Your task to perform on an android device: open app "DuckDuckGo Privacy Browser" (install if not already installed) Image 0: 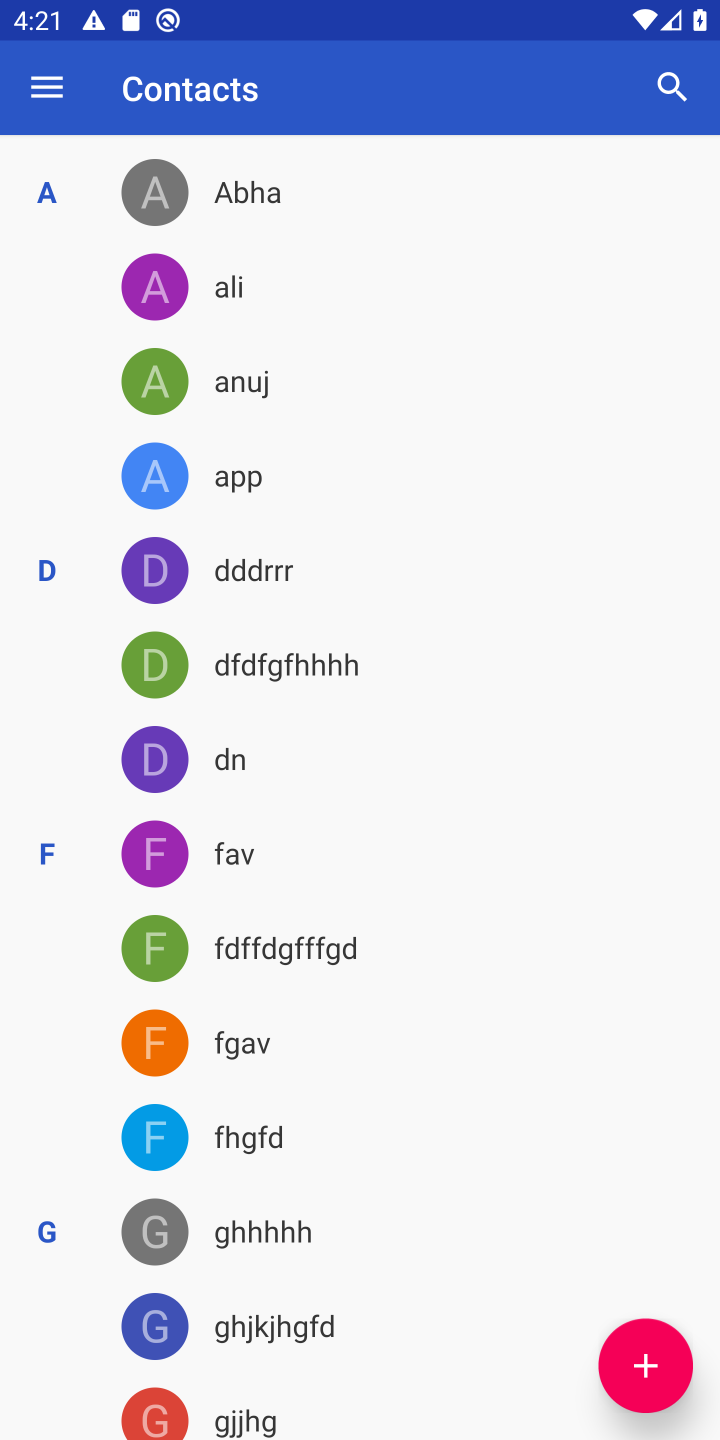
Step 0: press home button
Your task to perform on an android device: open app "DuckDuckGo Privacy Browser" (install if not already installed) Image 1: 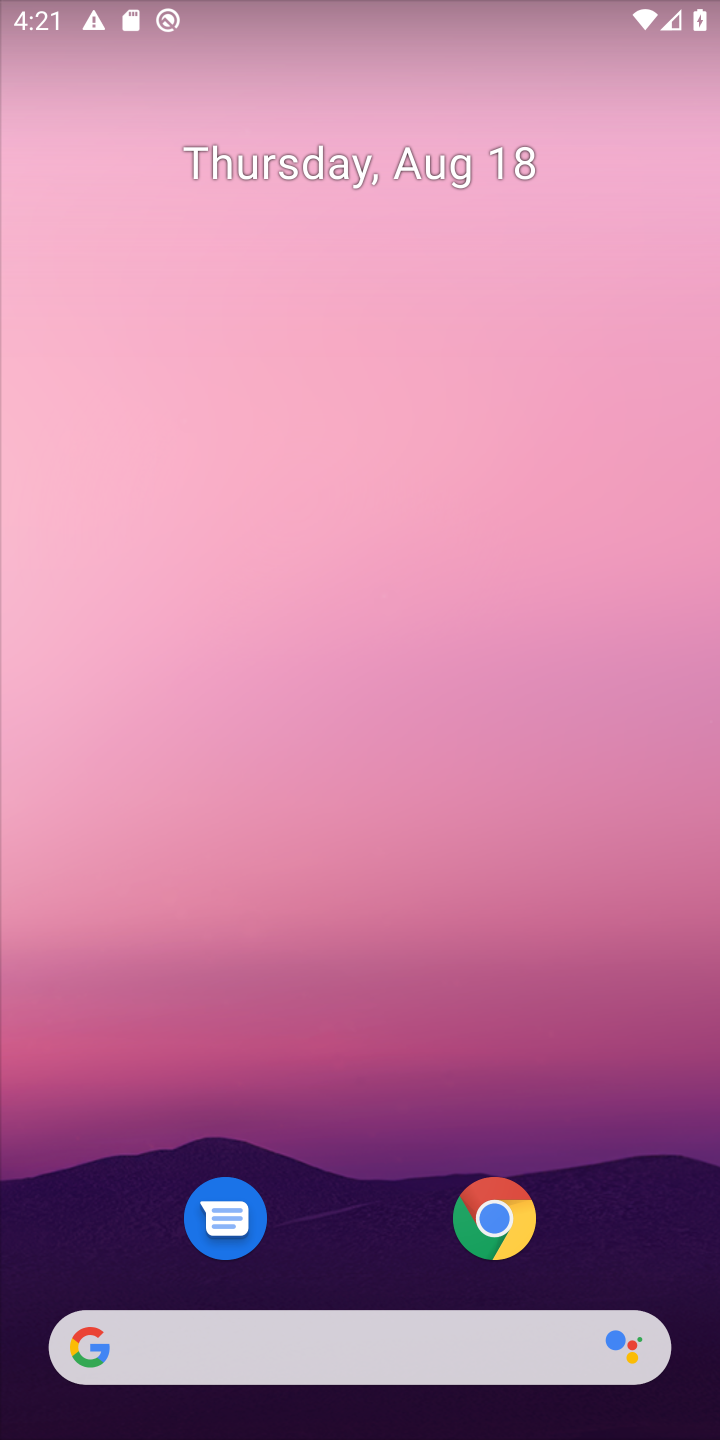
Step 1: drag from (337, 965) to (340, 381)
Your task to perform on an android device: open app "DuckDuckGo Privacy Browser" (install if not already installed) Image 2: 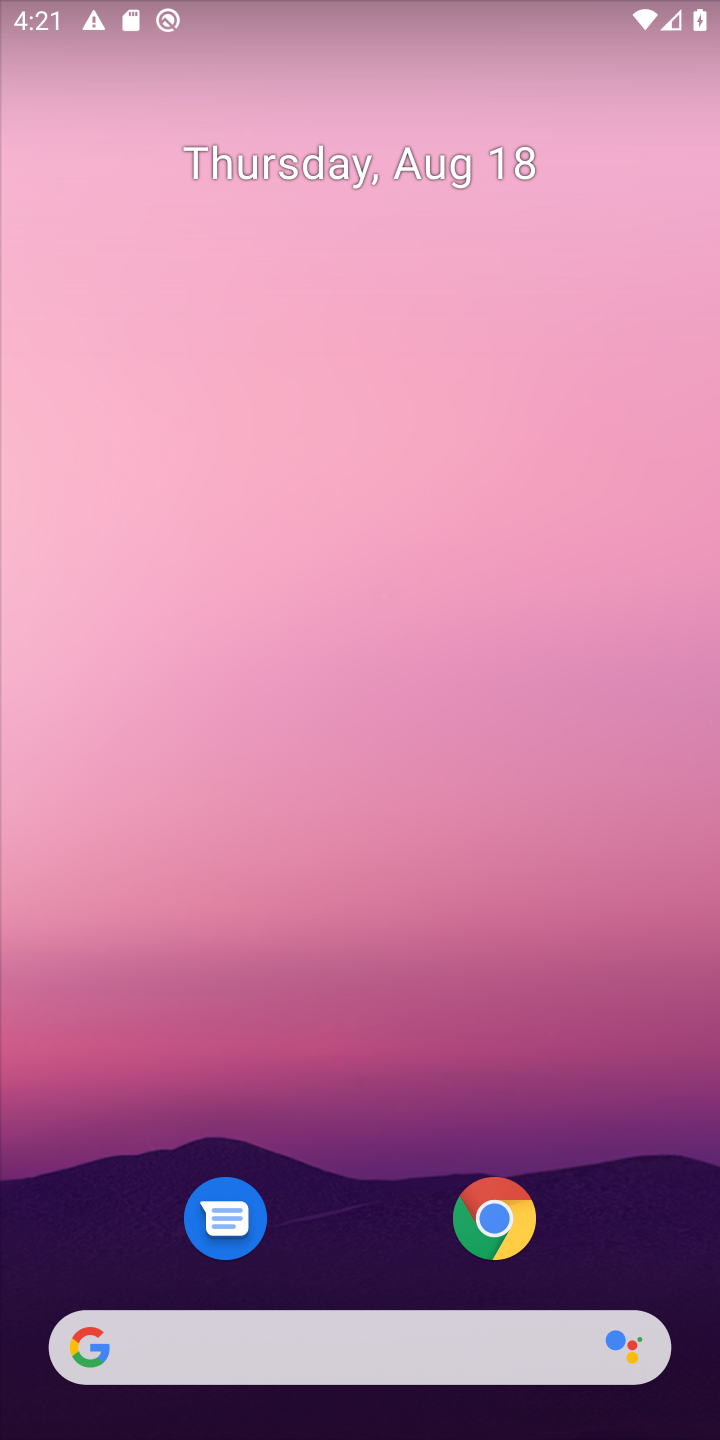
Step 2: drag from (333, 1150) to (372, 316)
Your task to perform on an android device: open app "DuckDuckGo Privacy Browser" (install if not already installed) Image 3: 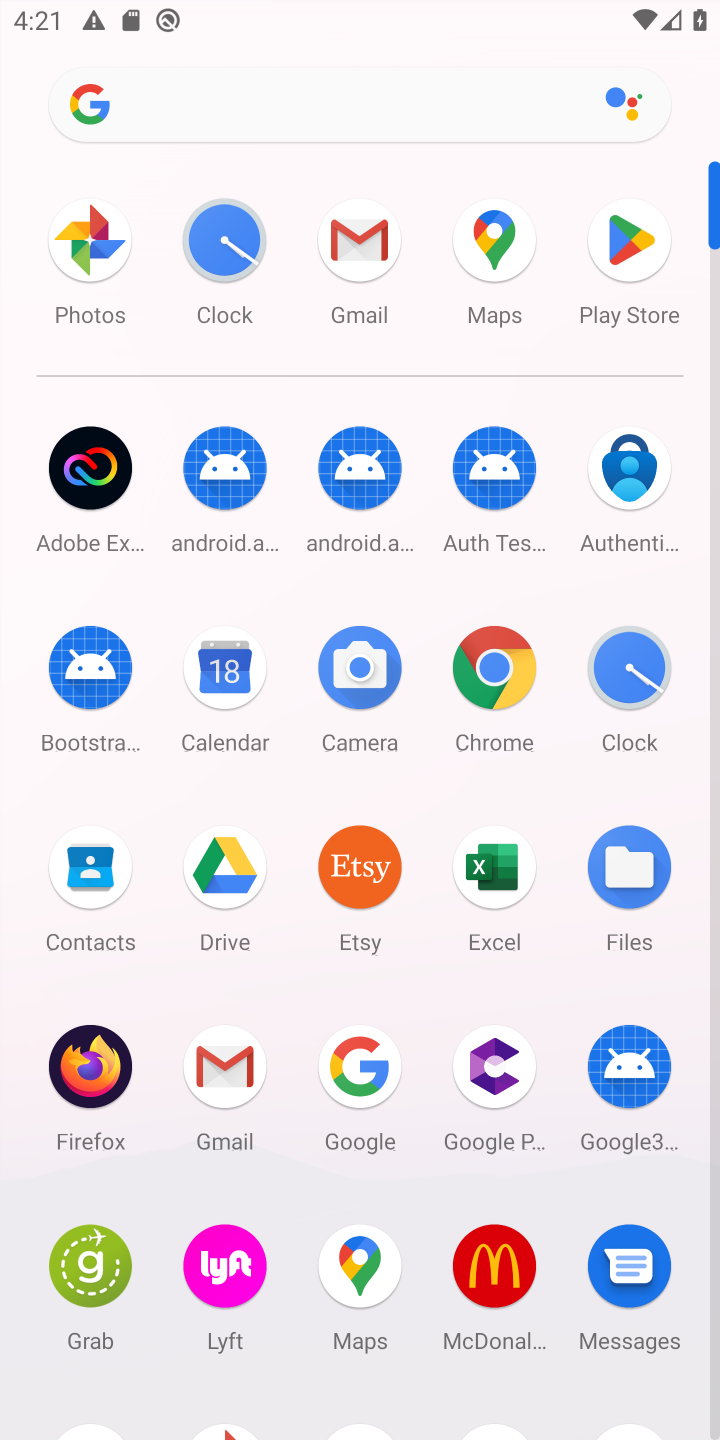
Step 3: click (618, 256)
Your task to perform on an android device: open app "DuckDuckGo Privacy Browser" (install if not already installed) Image 4: 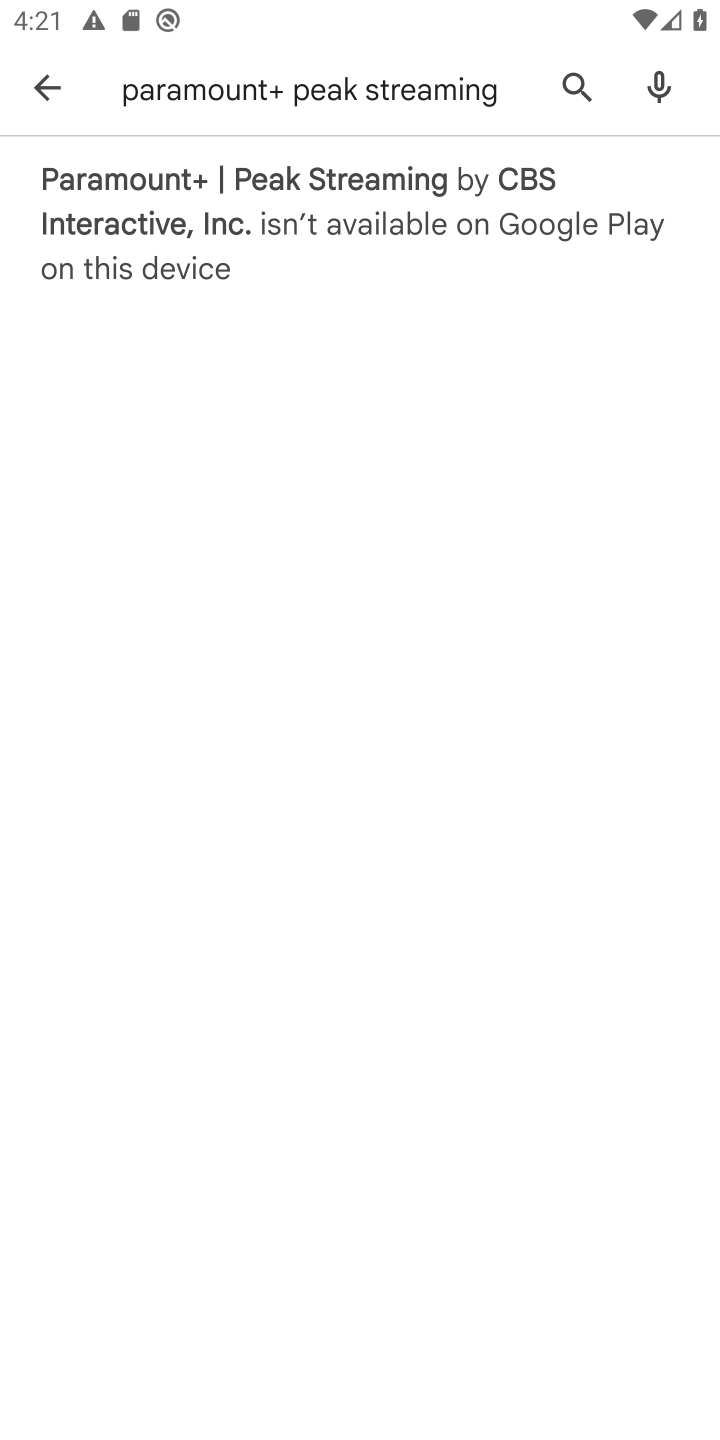
Step 4: click (571, 78)
Your task to perform on an android device: open app "DuckDuckGo Privacy Browser" (install if not already installed) Image 5: 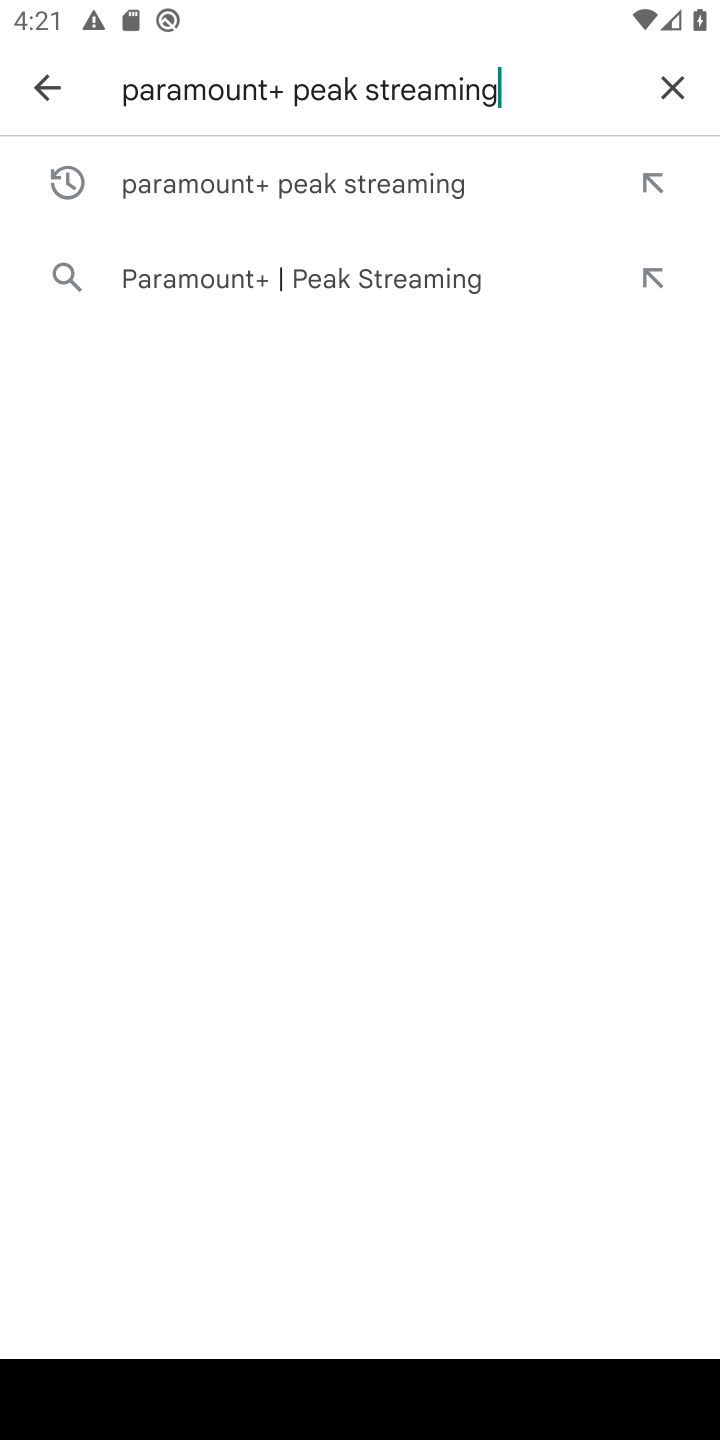
Step 5: click (684, 79)
Your task to perform on an android device: open app "DuckDuckGo Privacy Browser" (install if not already installed) Image 6: 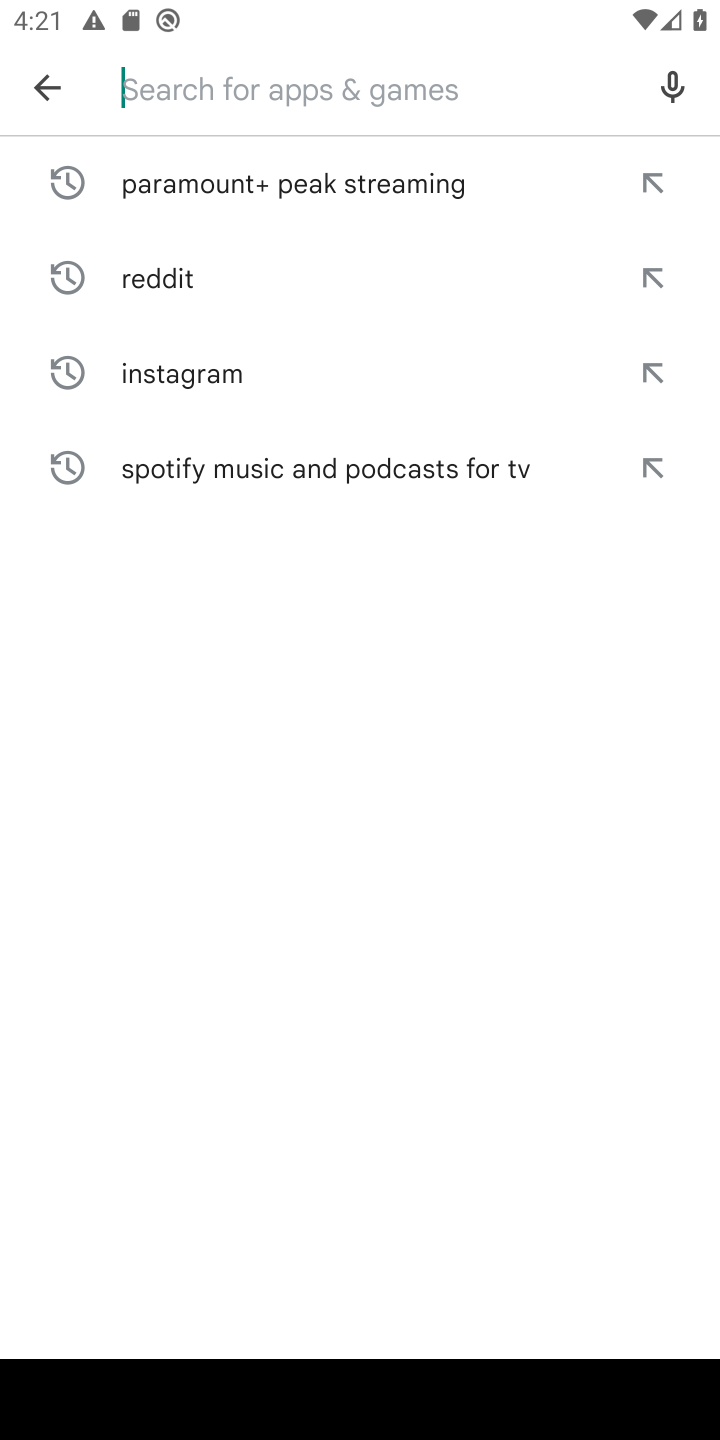
Step 6: type "DuckDuckGo Privacy Browser"
Your task to perform on an android device: open app "DuckDuckGo Privacy Browser" (install if not already installed) Image 7: 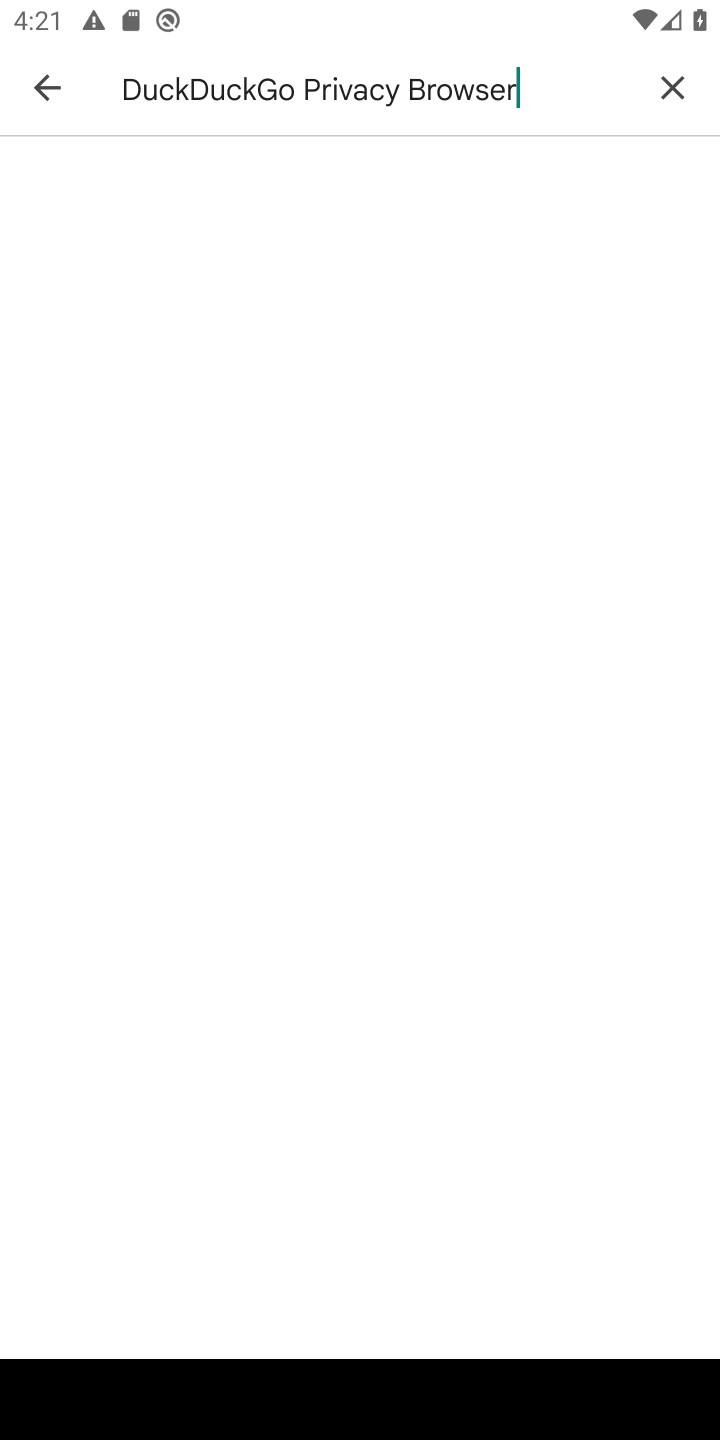
Step 7: type ""
Your task to perform on an android device: open app "DuckDuckGo Privacy Browser" (install if not already installed) Image 8: 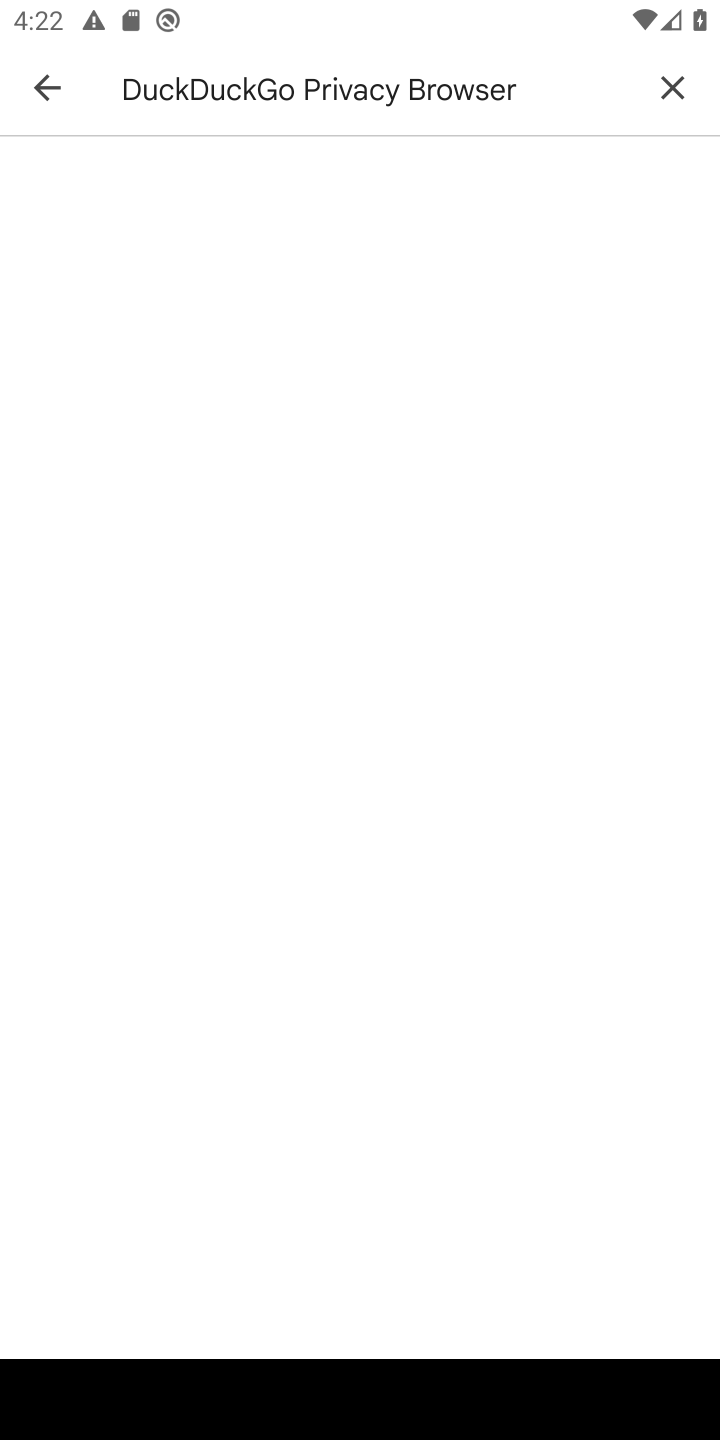
Step 8: task complete